Your task to perform on an android device: Open the calendar and show me this week's events? Image 0: 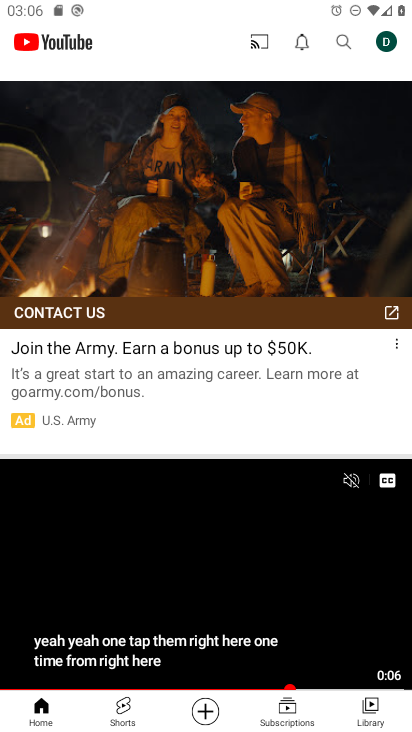
Step 0: press home button
Your task to perform on an android device: Open the calendar and show me this week's events? Image 1: 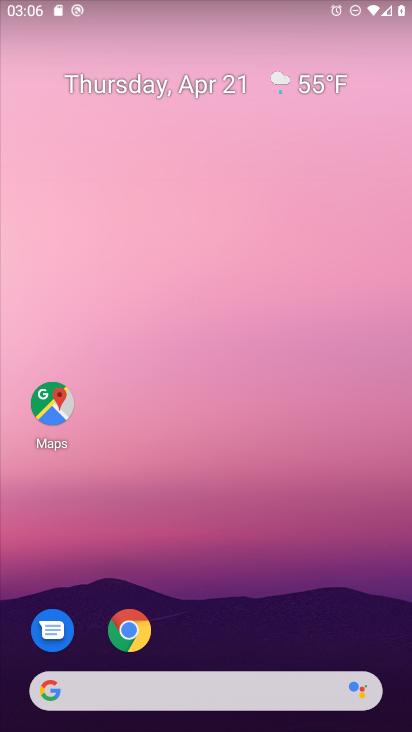
Step 1: drag from (341, 544) to (332, 92)
Your task to perform on an android device: Open the calendar and show me this week's events? Image 2: 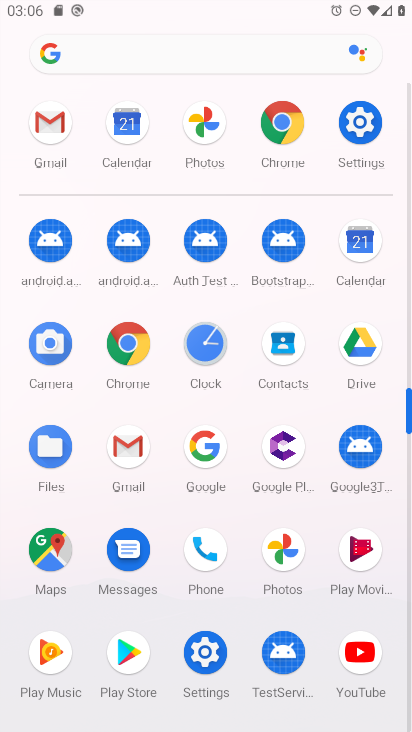
Step 2: click (358, 261)
Your task to perform on an android device: Open the calendar and show me this week's events? Image 3: 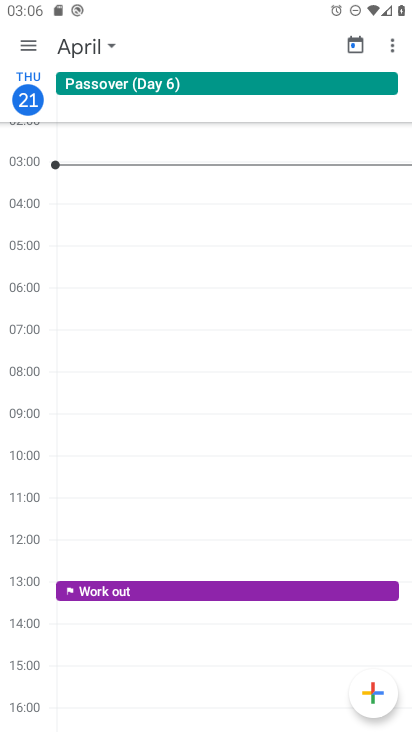
Step 3: click (30, 50)
Your task to perform on an android device: Open the calendar and show me this week's events? Image 4: 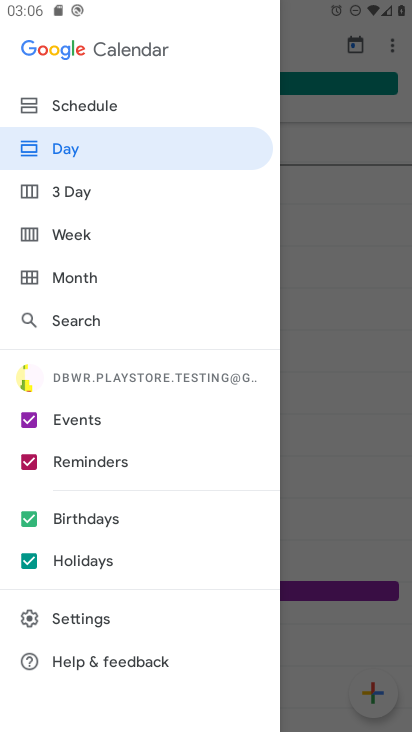
Step 4: click (79, 238)
Your task to perform on an android device: Open the calendar and show me this week's events? Image 5: 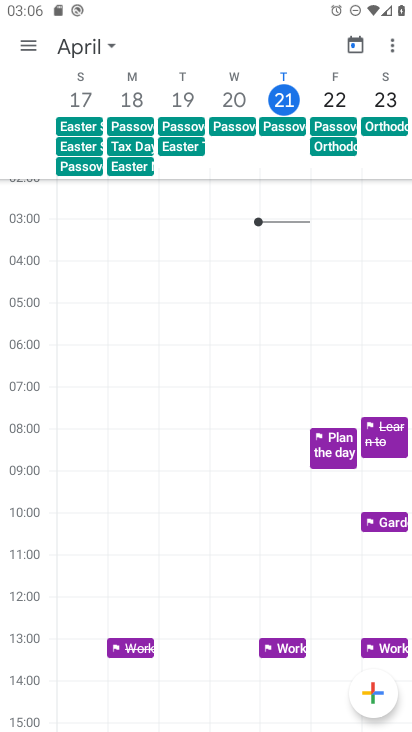
Step 5: task complete